Your task to perform on an android device: check battery use Image 0: 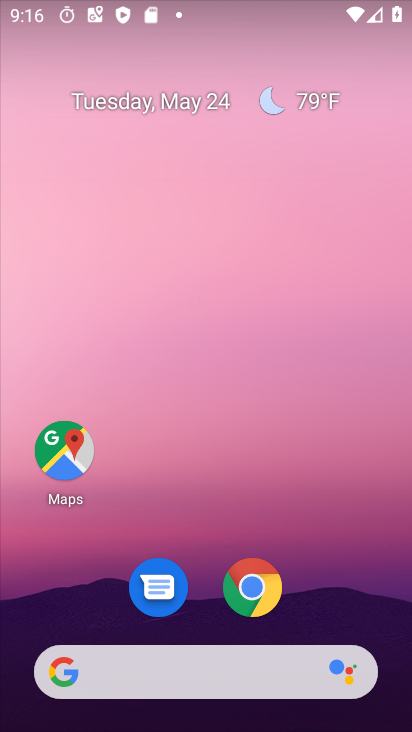
Step 0: drag from (353, 604) to (293, 184)
Your task to perform on an android device: check battery use Image 1: 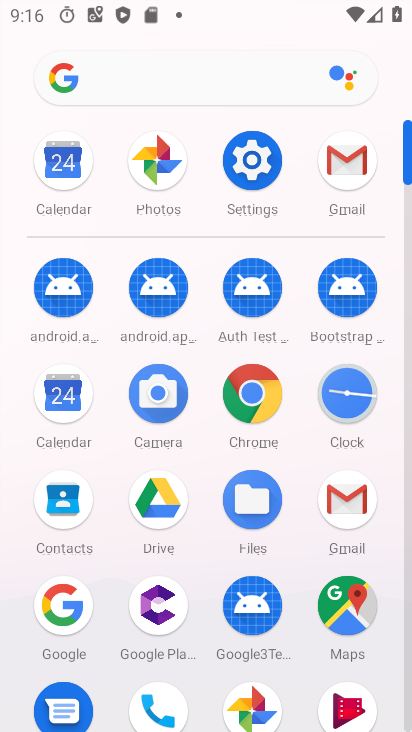
Step 1: click (251, 159)
Your task to perform on an android device: check battery use Image 2: 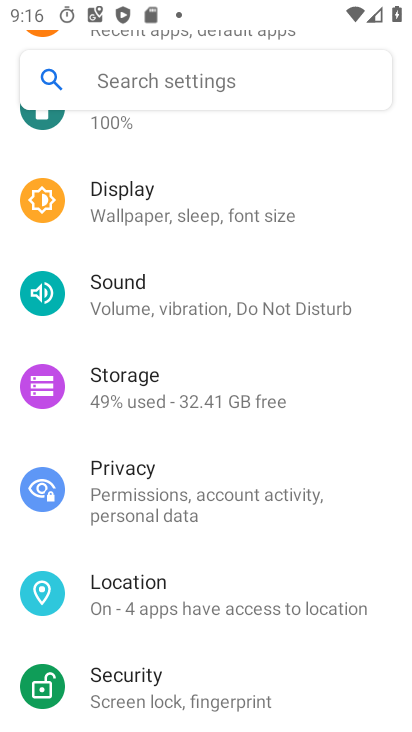
Step 2: drag from (180, 271) to (191, 363)
Your task to perform on an android device: check battery use Image 3: 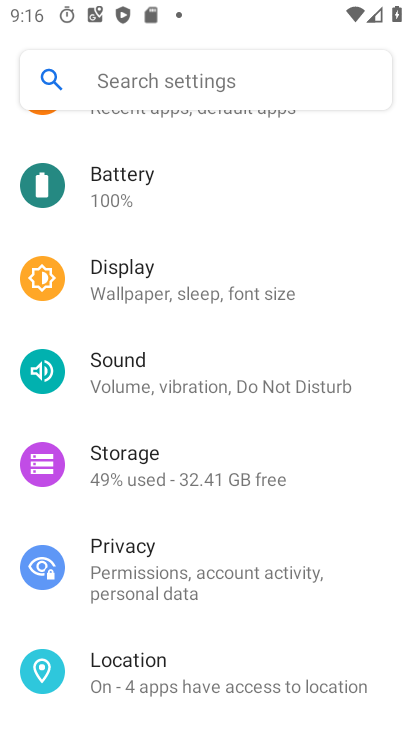
Step 3: click (136, 175)
Your task to perform on an android device: check battery use Image 4: 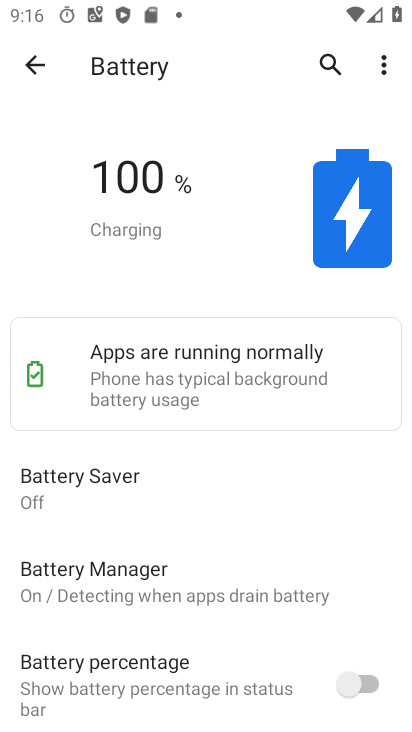
Step 4: click (386, 70)
Your task to perform on an android device: check battery use Image 5: 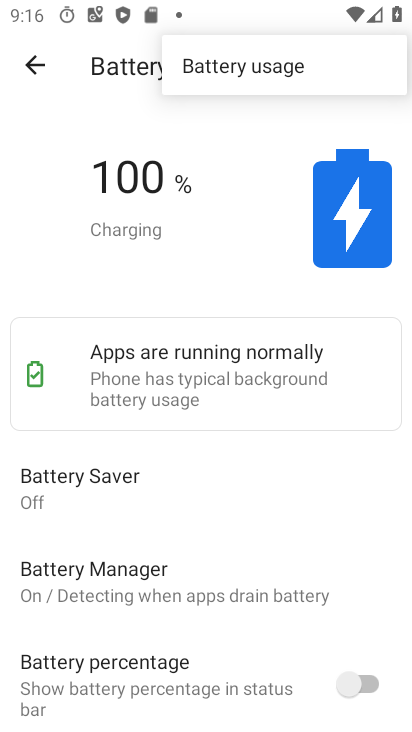
Step 5: click (263, 69)
Your task to perform on an android device: check battery use Image 6: 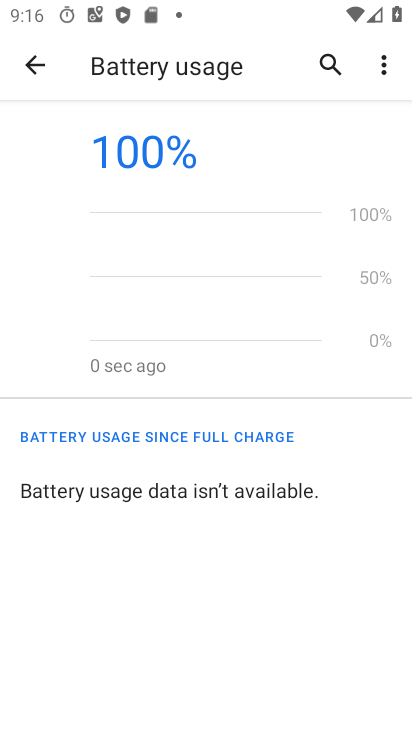
Step 6: task complete